Your task to perform on an android device: turn on improve location accuracy Image 0: 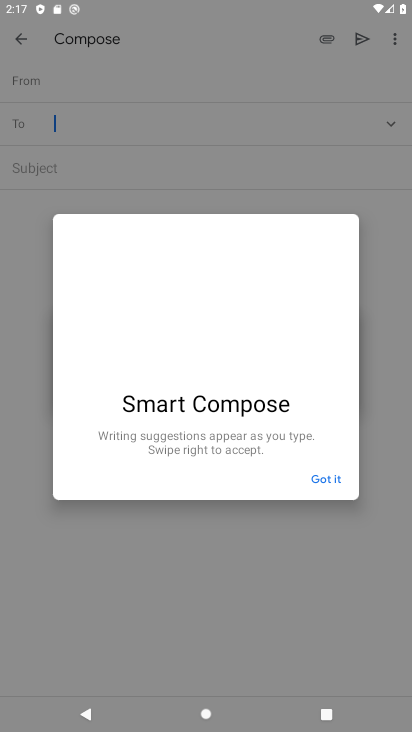
Step 0: click (162, 170)
Your task to perform on an android device: turn on improve location accuracy Image 1: 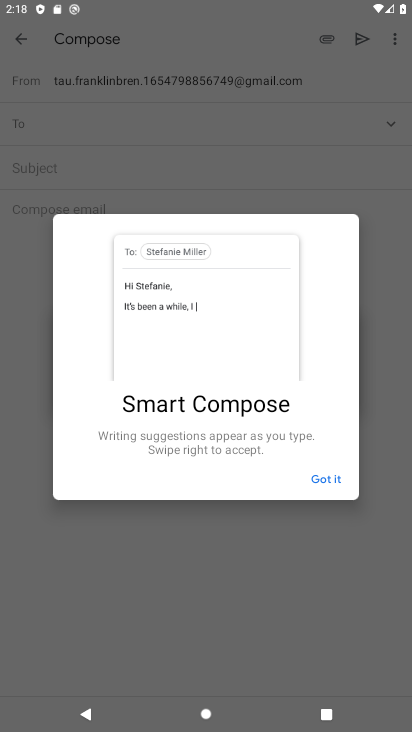
Step 1: click (332, 484)
Your task to perform on an android device: turn on improve location accuracy Image 2: 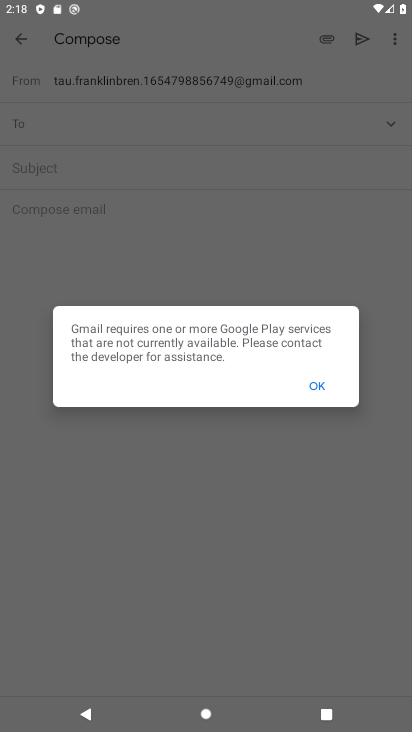
Step 2: click (320, 377)
Your task to perform on an android device: turn on improve location accuracy Image 3: 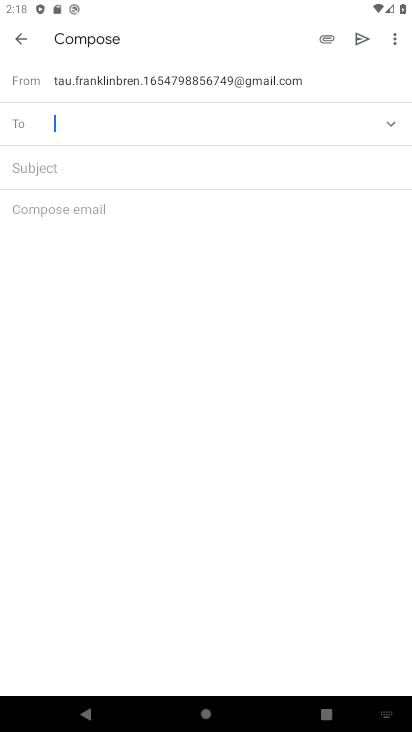
Step 3: press home button
Your task to perform on an android device: turn on improve location accuracy Image 4: 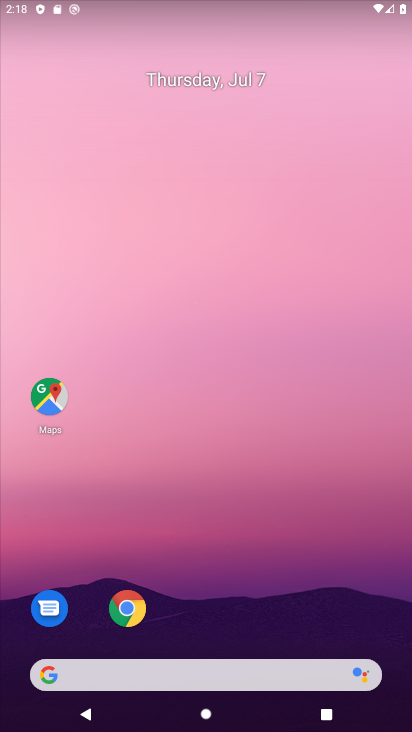
Step 4: drag from (237, 588) to (409, 124)
Your task to perform on an android device: turn on improve location accuracy Image 5: 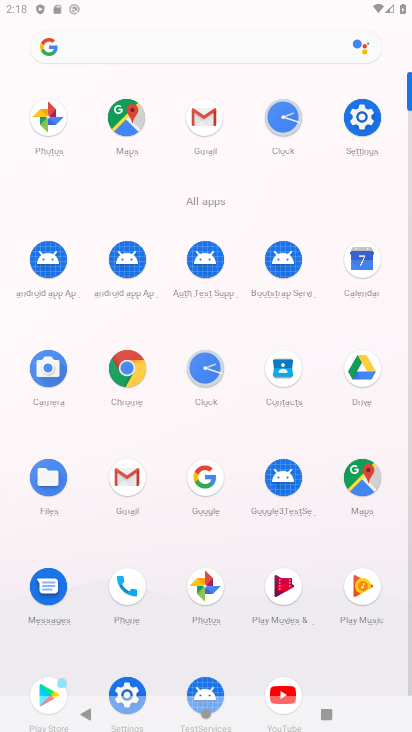
Step 5: click (367, 161)
Your task to perform on an android device: turn on improve location accuracy Image 6: 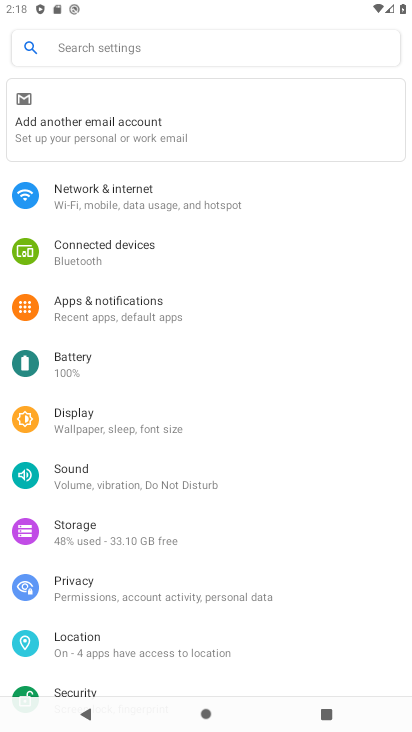
Step 6: click (150, 653)
Your task to perform on an android device: turn on improve location accuracy Image 7: 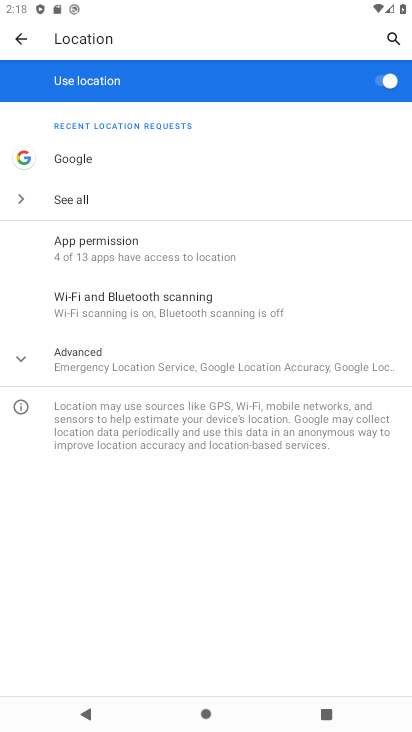
Step 7: click (196, 362)
Your task to perform on an android device: turn on improve location accuracy Image 8: 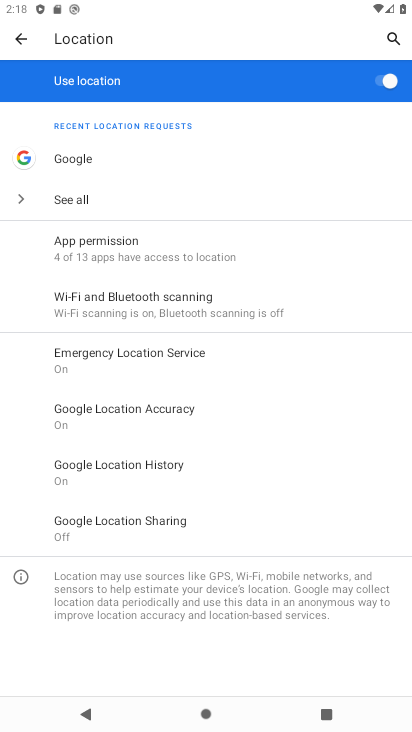
Step 8: click (222, 412)
Your task to perform on an android device: turn on improve location accuracy Image 9: 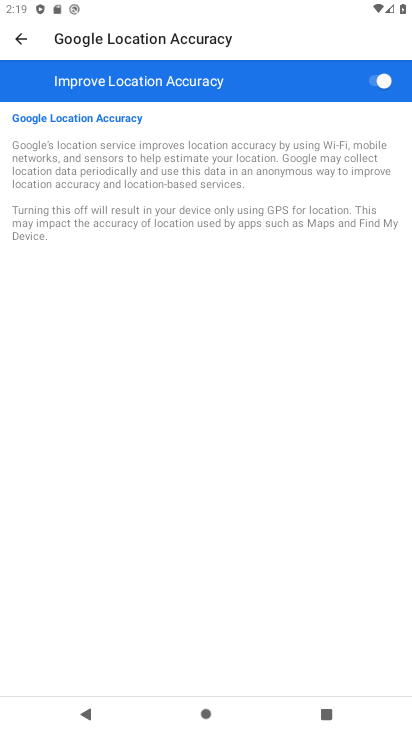
Step 9: task complete